Your task to perform on an android device: open app "Pluto TV - Live TV and Movies" Image 0: 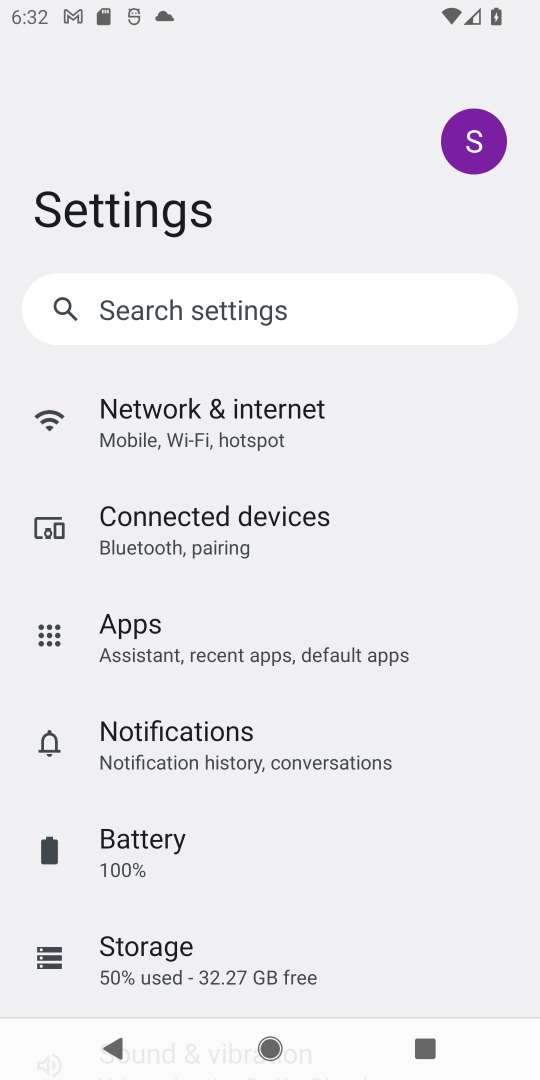
Step 0: press home button
Your task to perform on an android device: open app "Pluto TV - Live TV and Movies" Image 1: 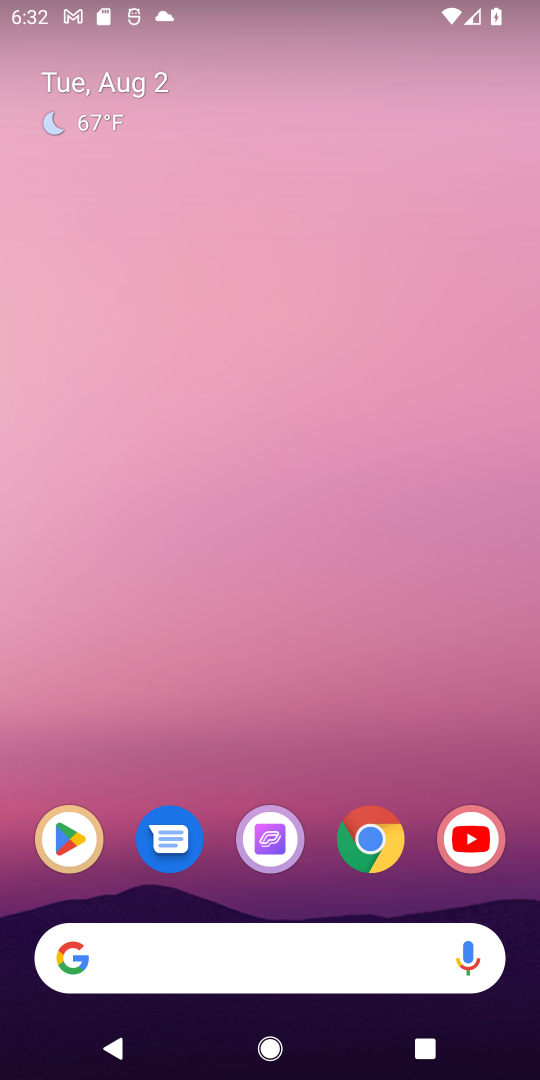
Step 1: click (57, 854)
Your task to perform on an android device: open app "Pluto TV - Live TV and Movies" Image 2: 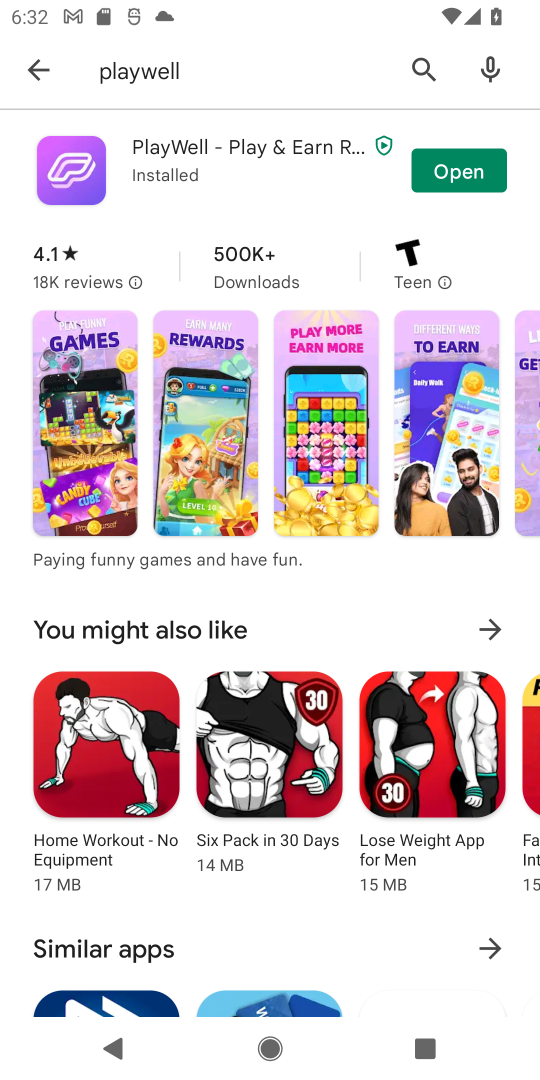
Step 2: click (217, 78)
Your task to perform on an android device: open app "Pluto TV - Live TV and Movies" Image 3: 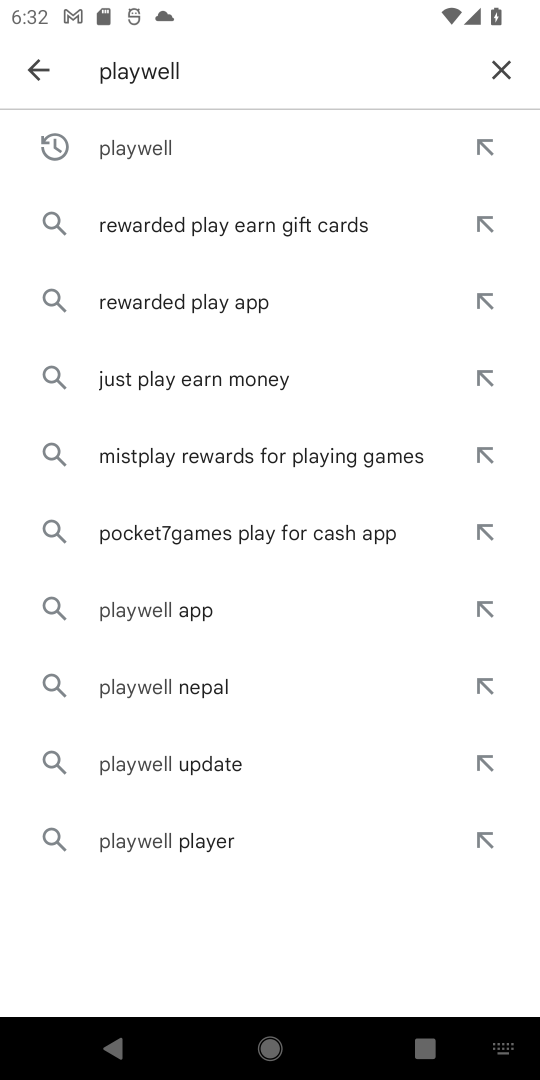
Step 3: click (493, 59)
Your task to perform on an android device: open app "Pluto TV - Live TV and Movies" Image 4: 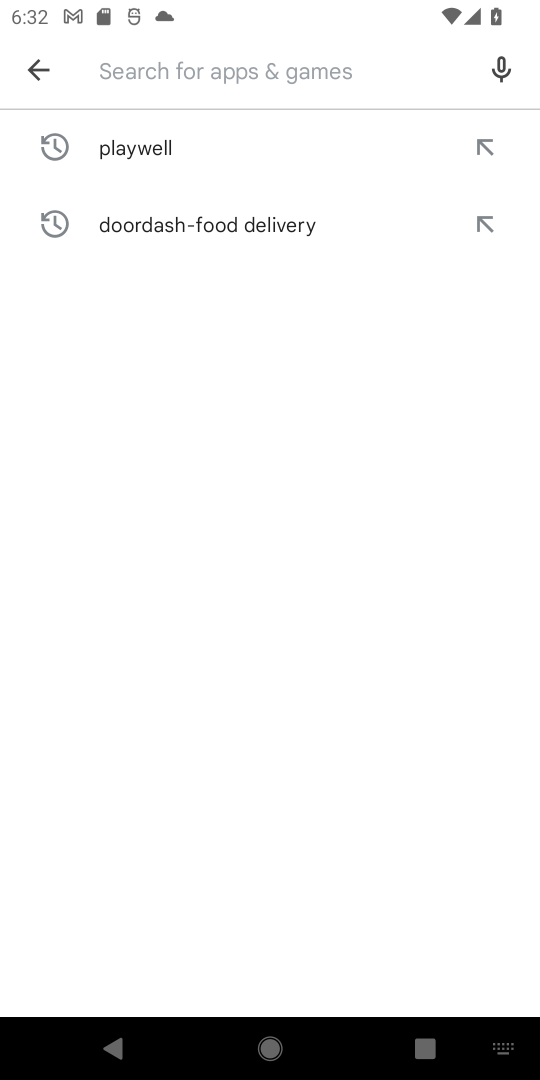
Step 4: type "pluto TV"
Your task to perform on an android device: open app "Pluto TV - Live TV and Movies" Image 5: 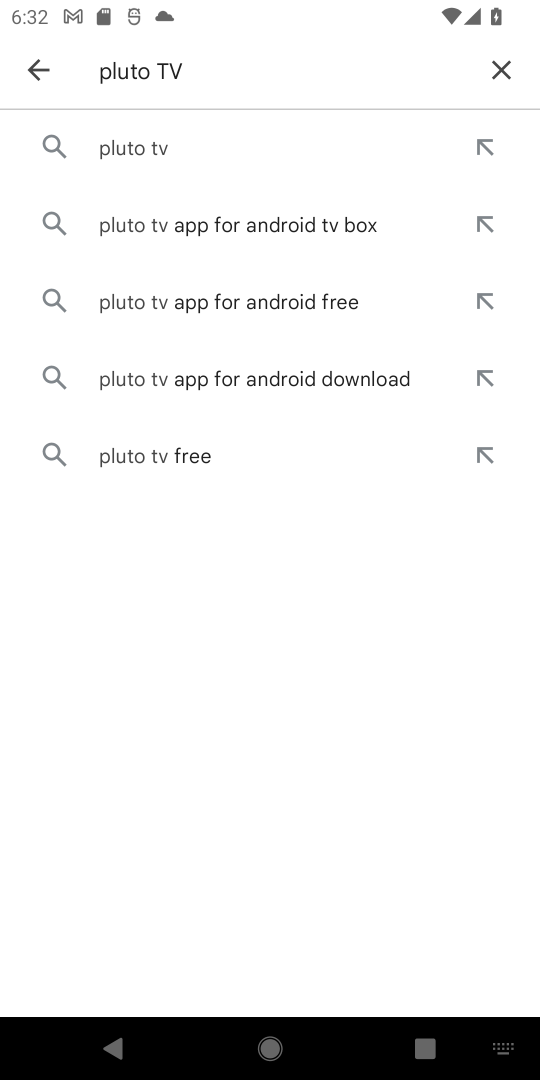
Step 5: click (189, 155)
Your task to perform on an android device: open app "Pluto TV - Live TV and Movies" Image 6: 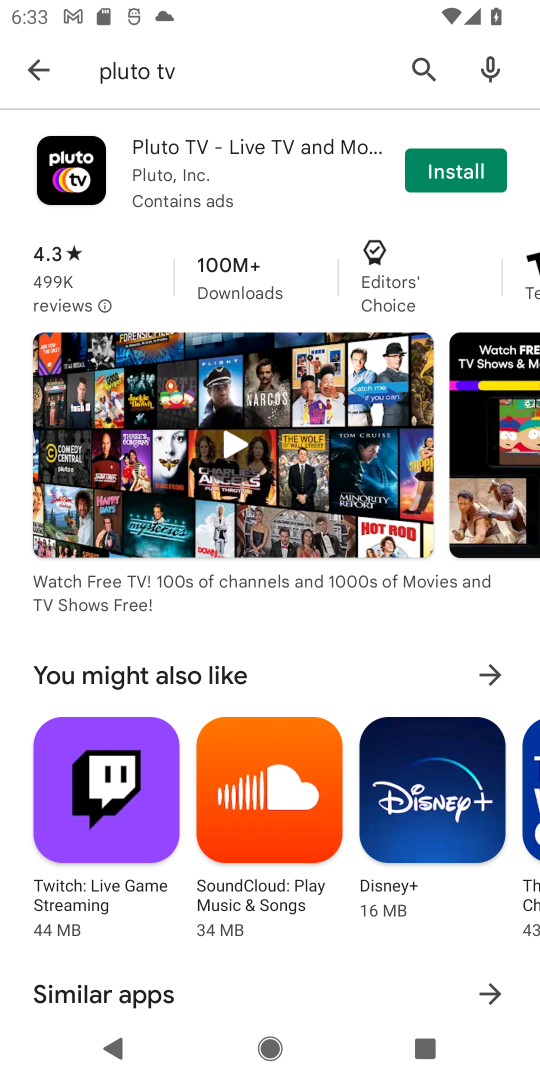
Step 6: task complete